Your task to perform on an android device: Go to Wikipedia Image 0: 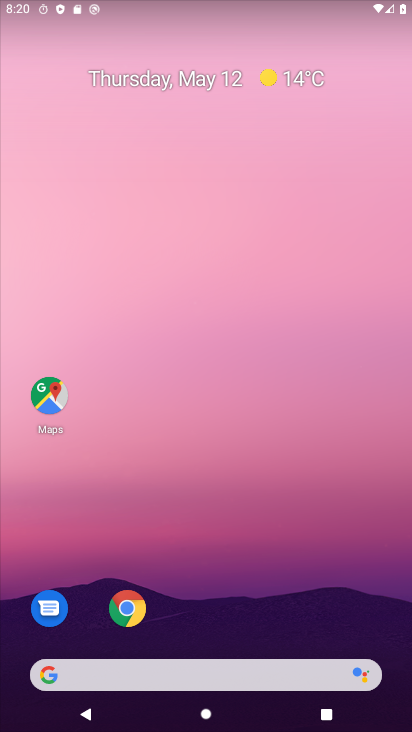
Step 0: drag from (229, 619) to (189, 45)
Your task to perform on an android device: Go to Wikipedia Image 1: 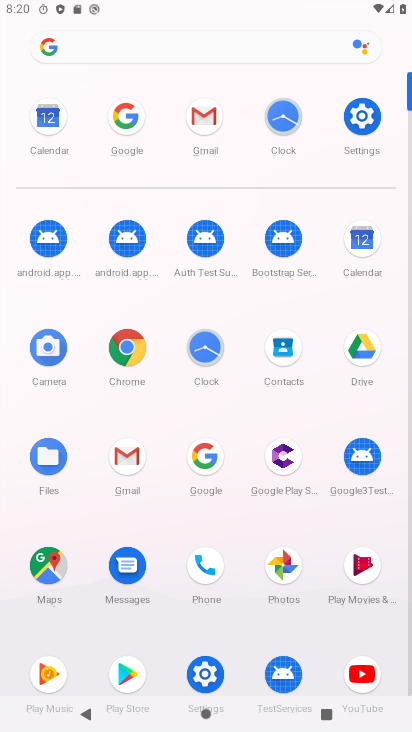
Step 1: click (112, 354)
Your task to perform on an android device: Go to Wikipedia Image 2: 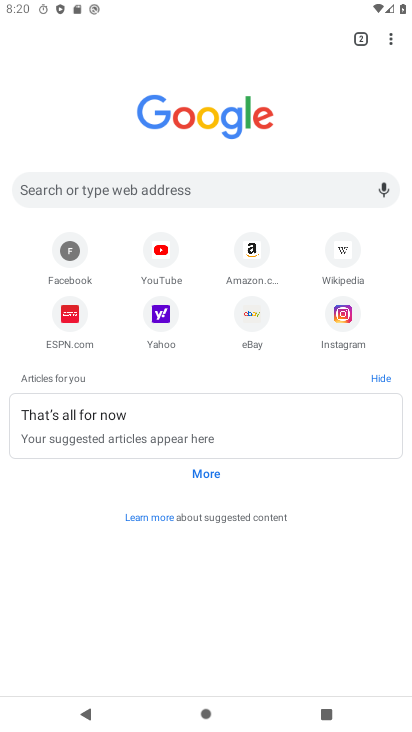
Step 2: click (335, 255)
Your task to perform on an android device: Go to Wikipedia Image 3: 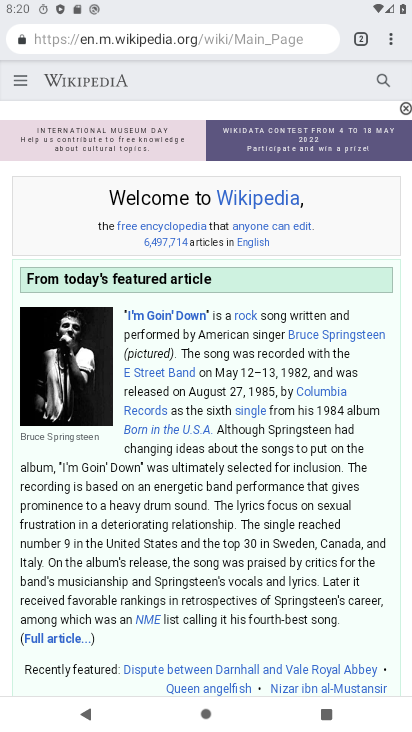
Step 3: task complete